Your task to perform on an android device: Set the phone to "Do not disturb". Image 0: 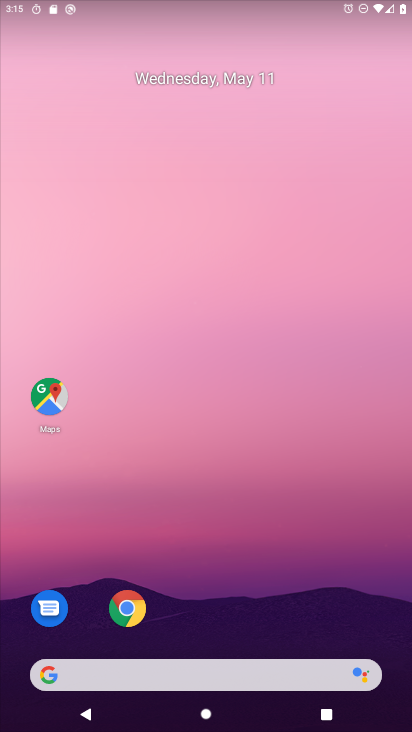
Step 0: drag from (199, 591) to (215, 160)
Your task to perform on an android device: Set the phone to "Do not disturb". Image 1: 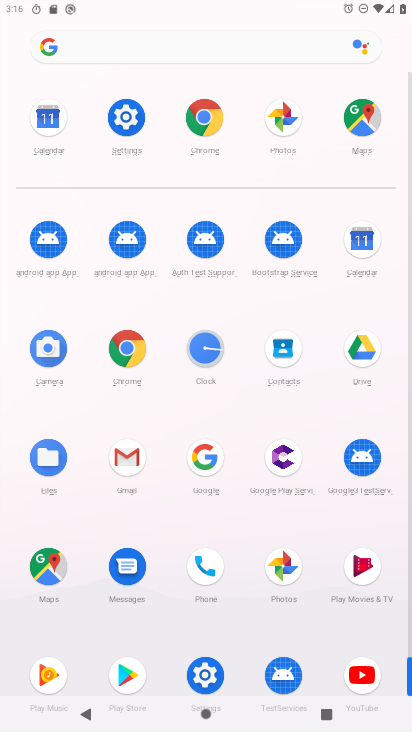
Step 1: task complete